Your task to perform on an android device: What's on my calendar tomorrow? Image 0: 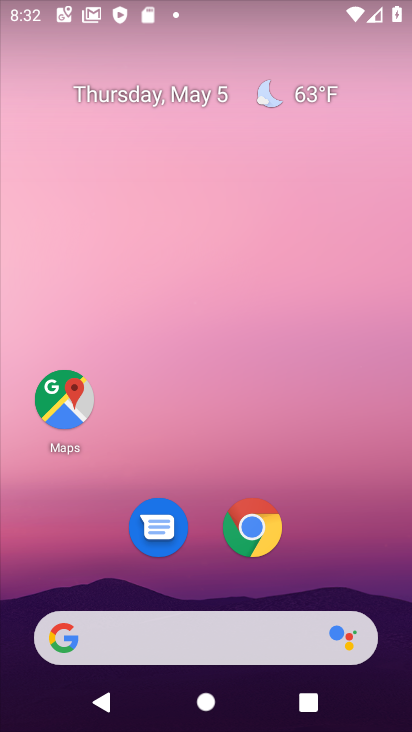
Step 0: drag from (268, 708) to (168, 5)
Your task to perform on an android device: What's on my calendar tomorrow? Image 1: 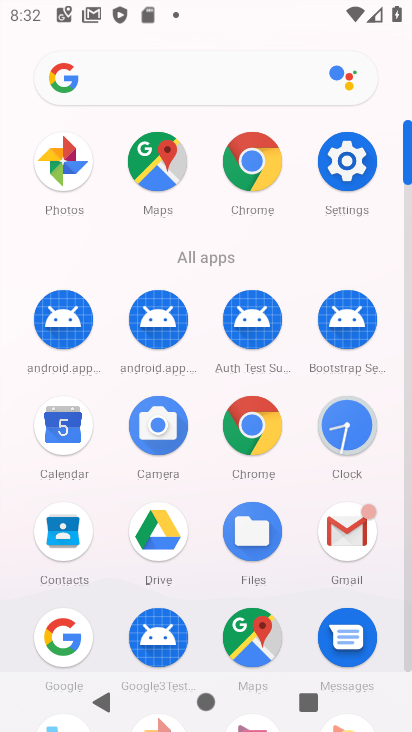
Step 1: click (68, 424)
Your task to perform on an android device: What's on my calendar tomorrow? Image 2: 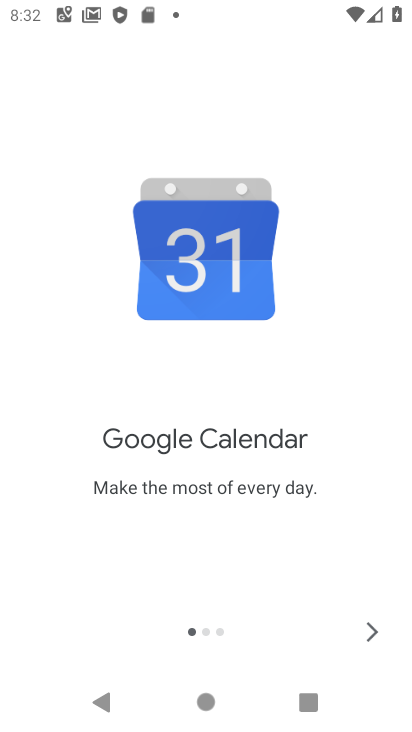
Step 2: click (374, 642)
Your task to perform on an android device: What's on my calendar tomorrow? Image 3: 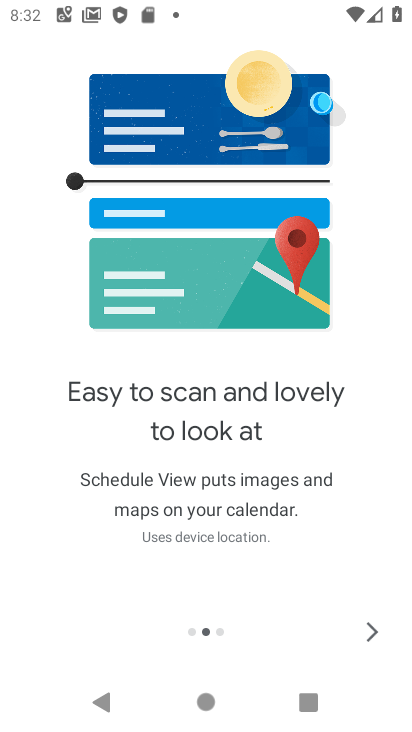
Step 3: click (374, 638)
Your task to perform on an android device: What's on my calendar tomorrow? Image 4: 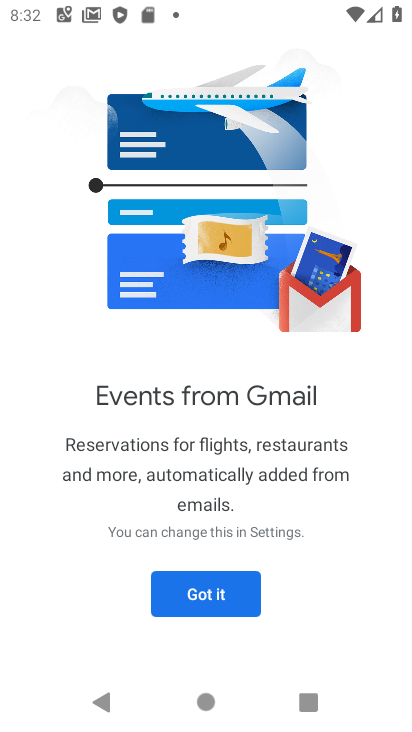
Step 4: click (221, 588)
Your task to perform on an android device: What's on my calendar tomorrow? Image 5: 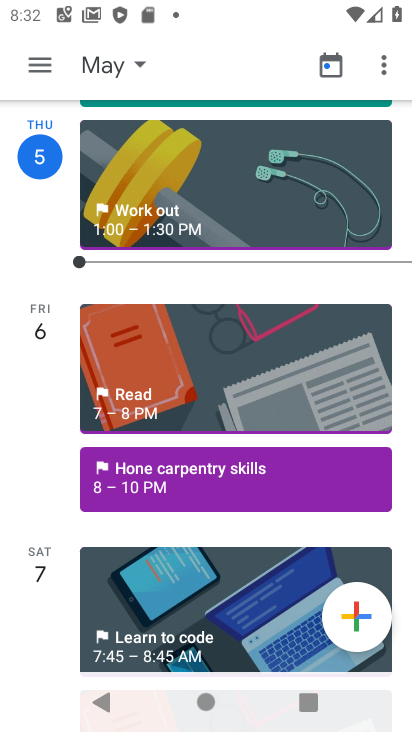
Step 5: click (110, 72)
Your task to perform on an android device: What's on my calendar tomorrow? Image 6: 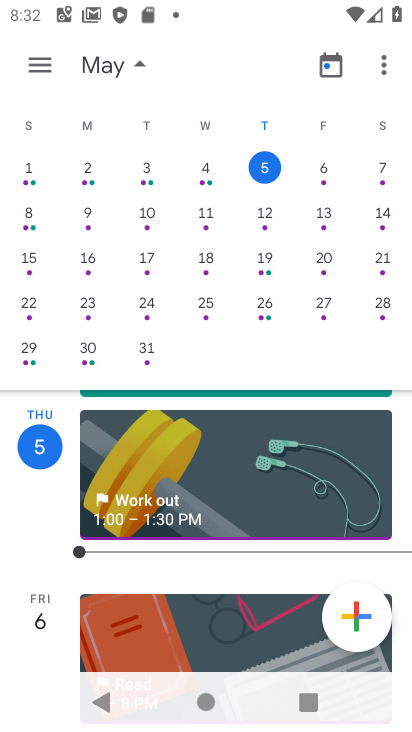
Step 6: click (323, 165)
Your task to perform on an android device: What's on my calendar tomorrow? Image 7: 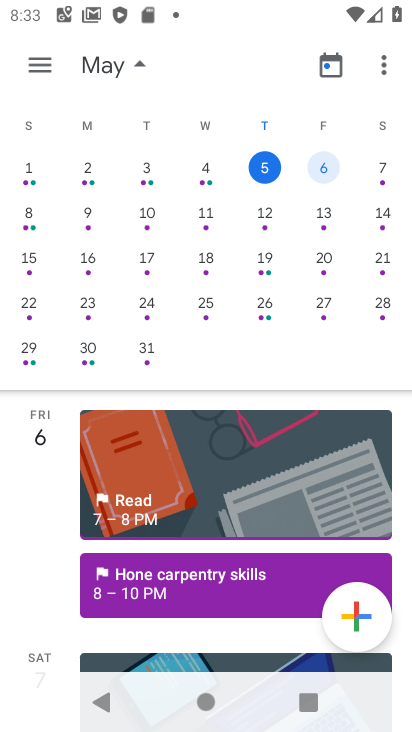
Step 7: task complete